Your task to perform on an android device: allow notifications from all sites in the chrome app Image 0: 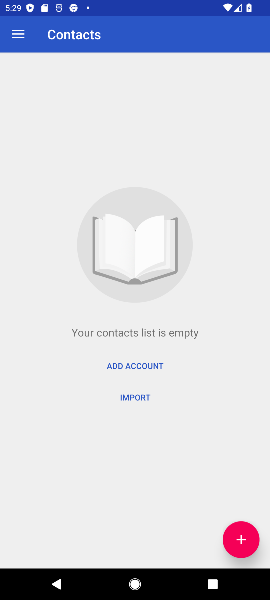
Step 0: press home button
Your task to perform on an android device: allow notifications from all sites in the chrome app Image 1: 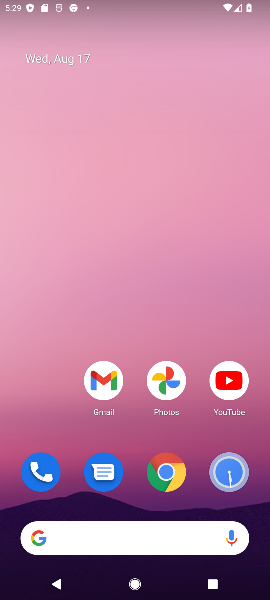
Step 1: click (165, 463)
Your task to perform on an android device: allow notifications from all sites in the chrome app Image 2: 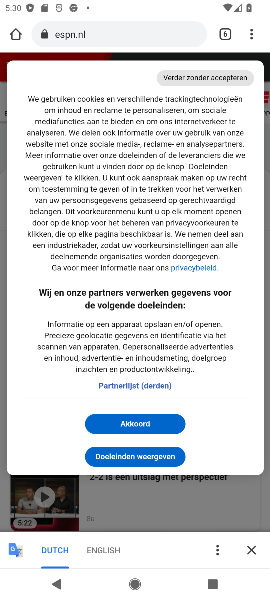
Step 2: click (249, 37)
Your task to perform on an android device: allow notifications from all sites in the chrome app Image 3: 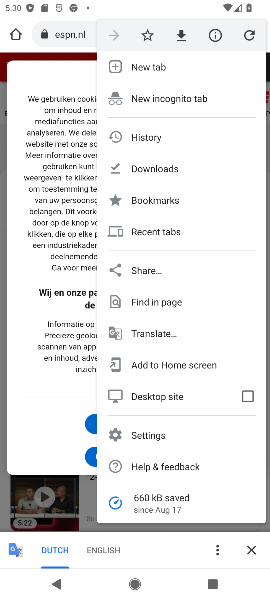
Step 3: click (154, 443)
Your task to perform on an android device: allow notifications from all sites in the chrome app Image 4: 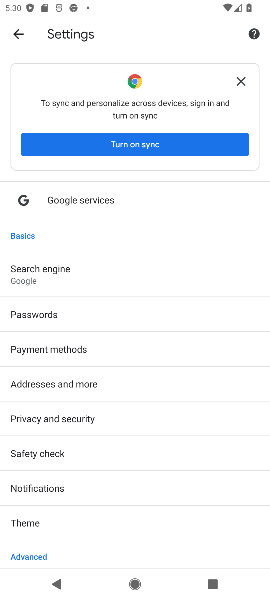
Step 4: drag from (95, 496) to (122, 278)
Your task to perform on an android device: allow notifications from all sites in the chrome app Image 5: 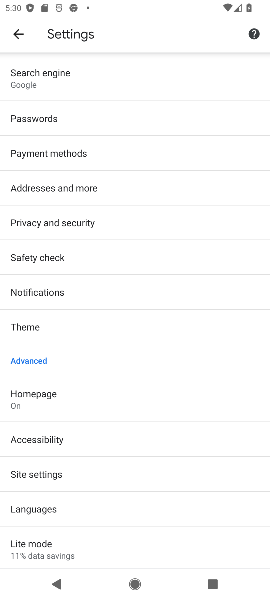
Step 5: click (64, 475)
Your task to perform on an android device: allow notifications from all sites in the chrome app Image 6: 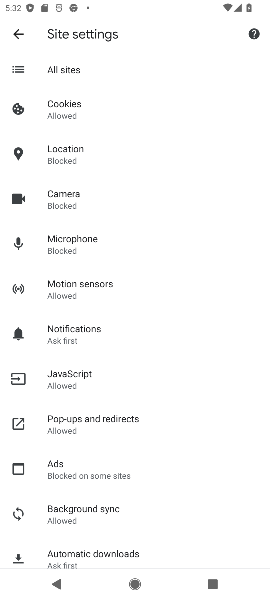
Step 6: press home button
Your task to perform on an android device: allow notifications from all sites in the chrome app Image 7: 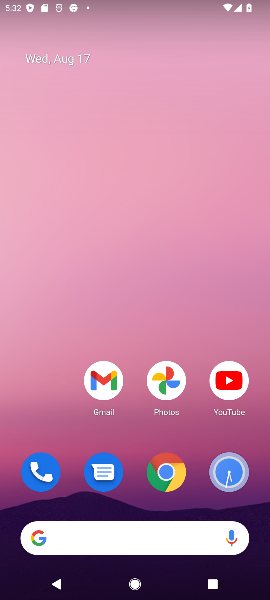
Step 7: click (173, 469)
Your task to perform on an android device: allow notifications from all sites in the chrome app Image 8: 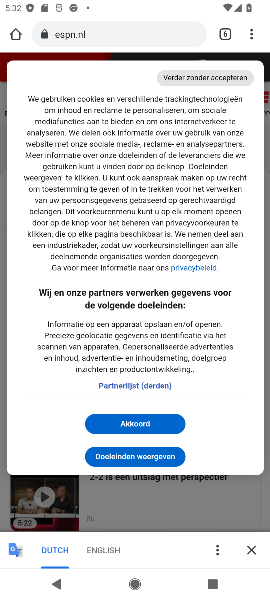
Step 8: click (250, 33)
Your task to perform on an android device: allow notifications from all sites in the chrome app Image 9: 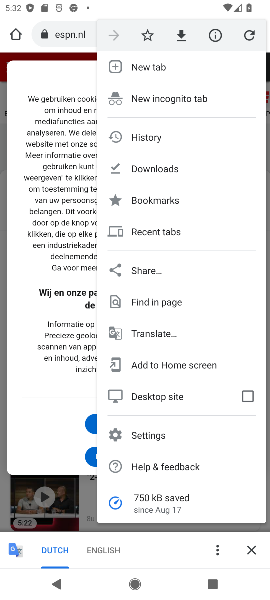
Step 9: click (133, 429)
Your task to perform on an android device: allow notifications from all sites in the chrome app Image 10: 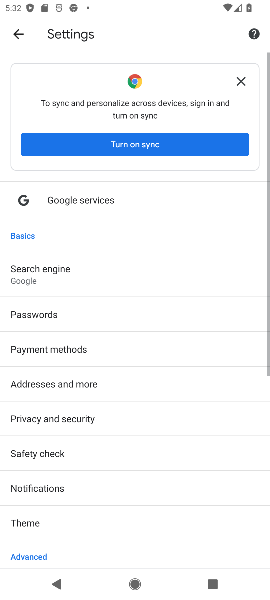
Step 10: drag from (113, 518) to (138, 251)
Your task to perform on an android device: allow notifications from all sites in the chrome app Image 11: 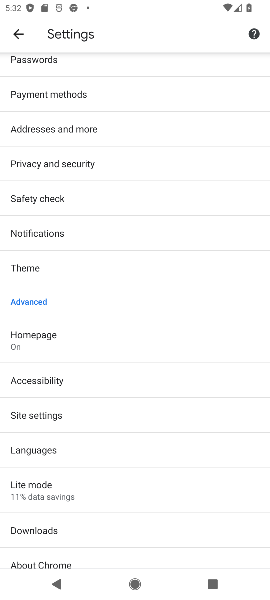
Step 11: click (60, 413)
Your task to perform on an android device: allow notifications from all sites in the chrome app Image 12: 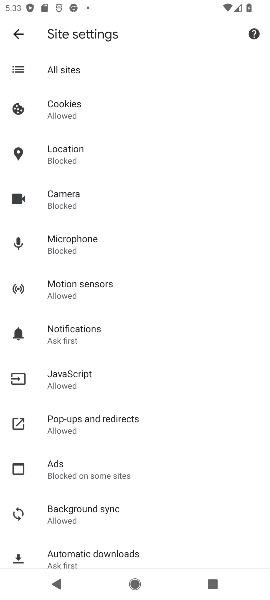
Step 12: click (63, 76)
Your task to perform on an android device: allow notifications from all sites in the chrome app Image 13: 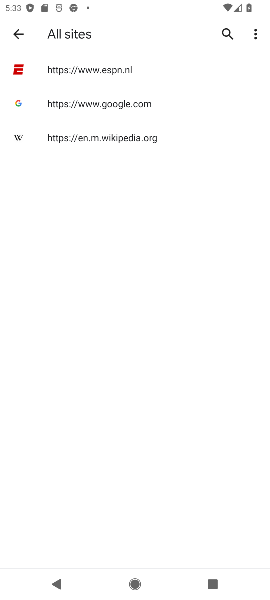
Step 13: click (128, 101)
Your task to perform on an android device: allow notifications from all sites in the chrome app Image 14: 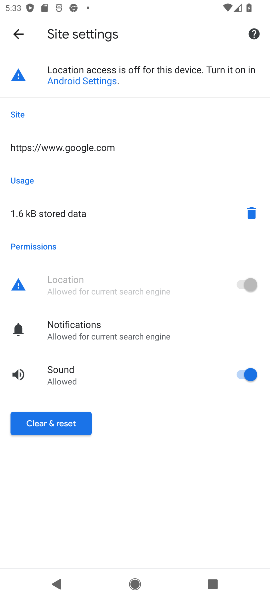
Step 14: click (169, 336)
Your task to perform on an android device: allow notifications from all sites in the chrome app Image 15: 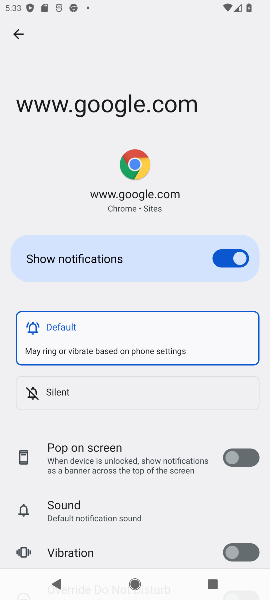
Step 15: task complete